Your task to perform on an android device: add a label to a message in the gmail app Image 0: 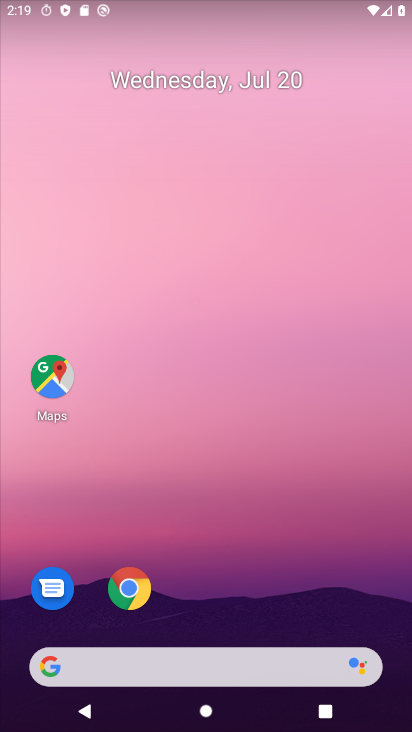
Step 0: drag from (177, 607) to (297, 80)
Your task to perform on an android device: add a label to a message in the gmail app Image 1: 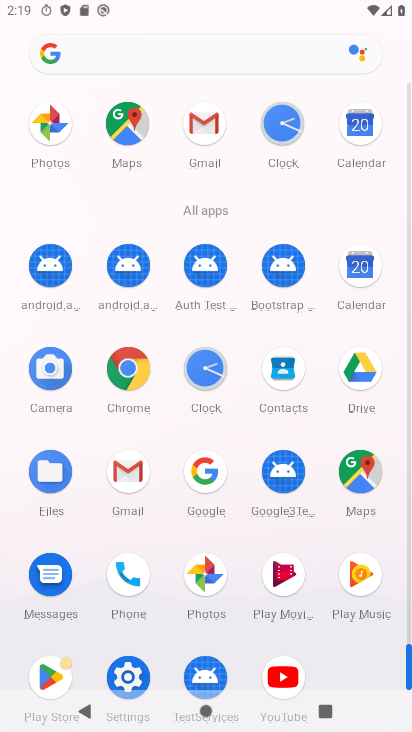
Step 1: click (124, 476)
Your task to perform on an android device: add a label to a message in the gmail app Image 2: 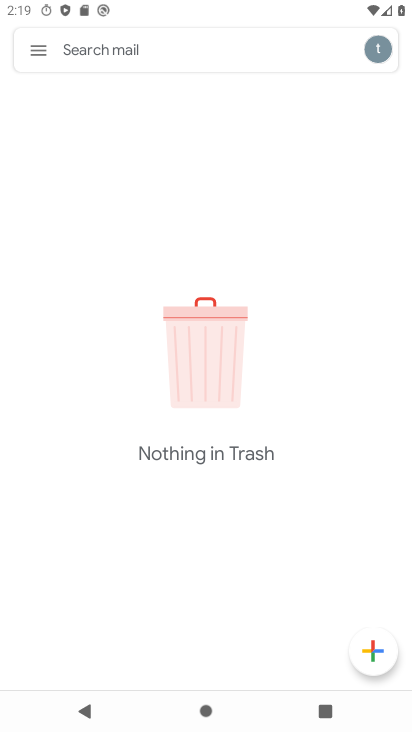
Step 2: click (31, 52)
Your task to perform on an android device: add a label to a message in the gmail app Image 3: 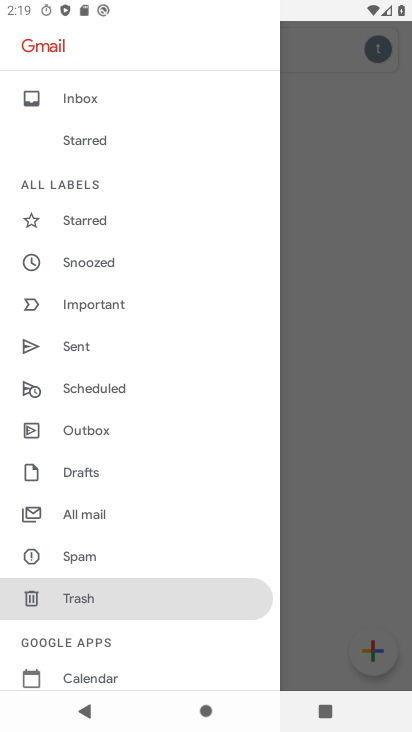
Step 3: click (361, 297)
Your task to perform on an android device: add a label to a message in the gmail app Image 4: 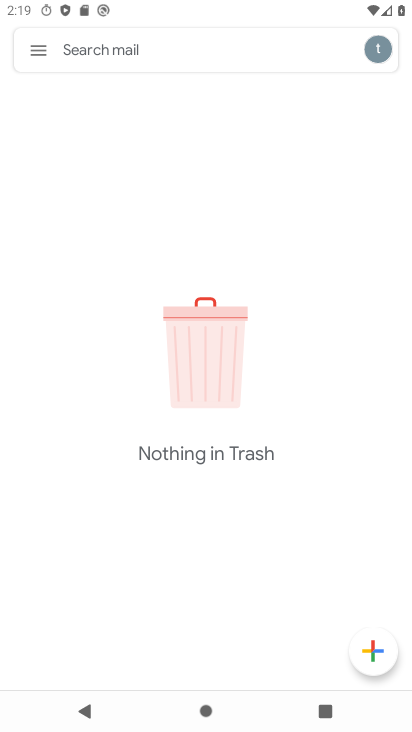
Step 4: task complete